Your task to perform on an android device: Open settings on Google Maps Image 0: 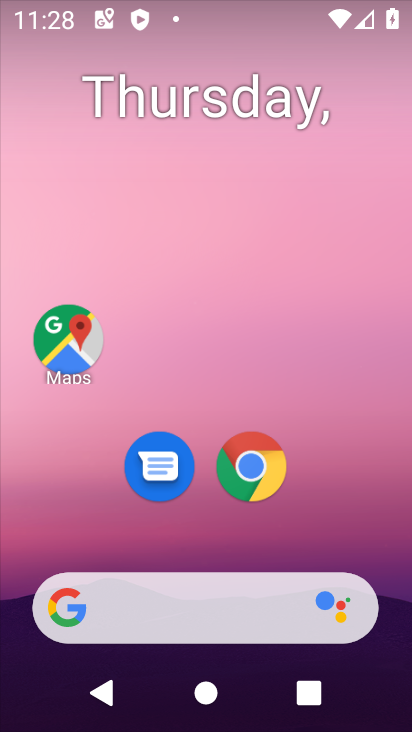
Step 0: drag from (374, 598) to (349, 53)
Your task to perform on an android device: Open settings on Google Maps Image 1: 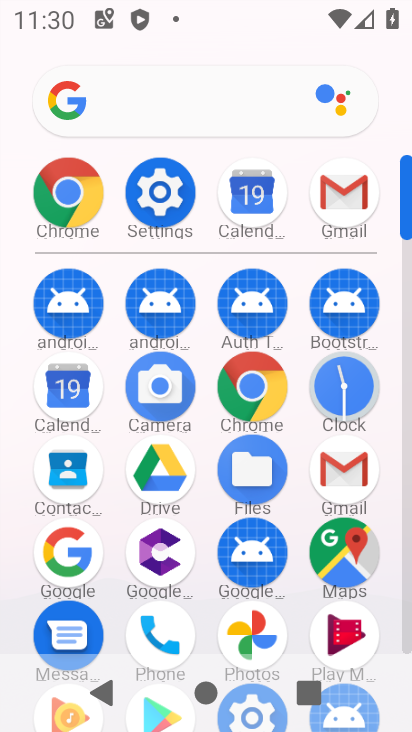
Step 1: click (355, 546)
Your task to perform on an android device: Open settings on Google Maps Image 2: 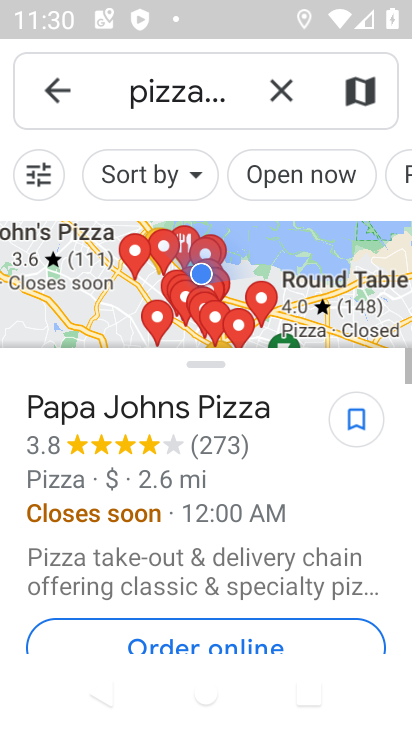
Step 2: press back button
Your task to perform on an android device: Open settings on Google Maps Image 3: 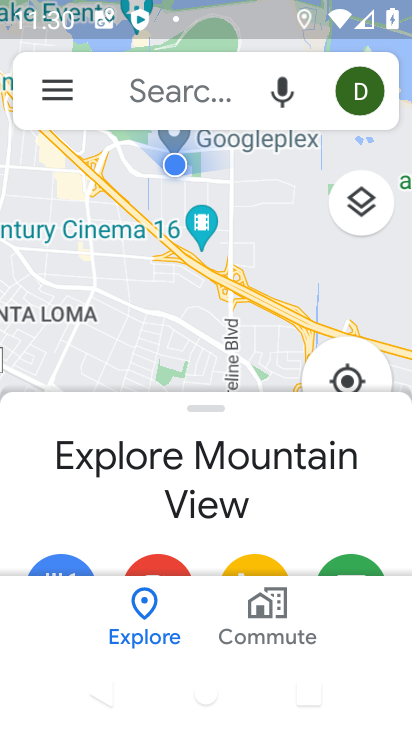
Step 3: click (60, 77)
Your task to perform on an android device: Open settings on Google Maps Image 4: 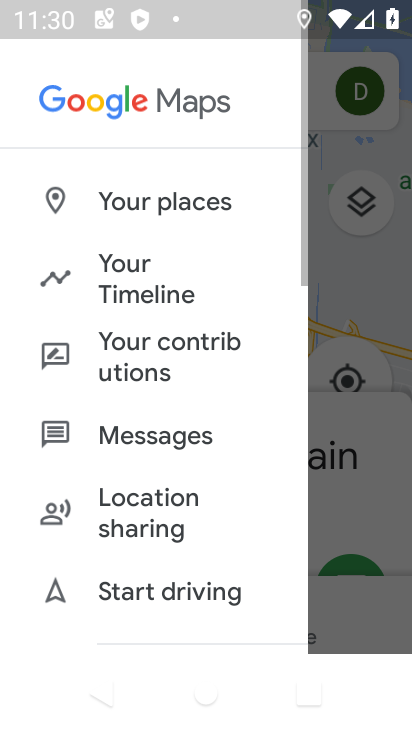
Step 4: drag from (108, 600) to (152, 122)
Your task to perform on an android device: Open settings on Google Maps Image 5: 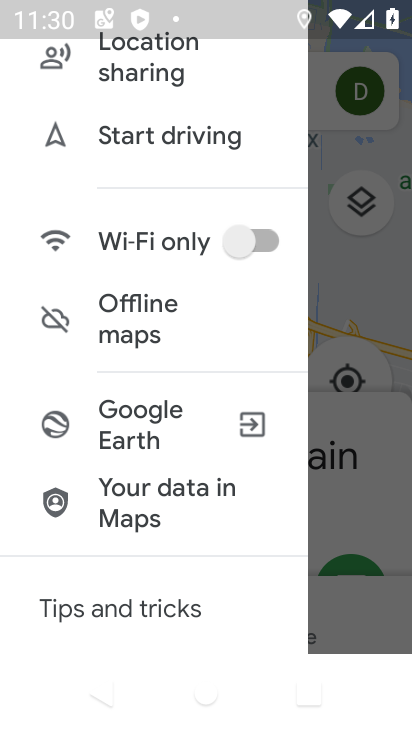
Step 5: drag from (125, 612) to (191, 126)
Your task to perform on an android device: Open settings on Google Maps Image 6: 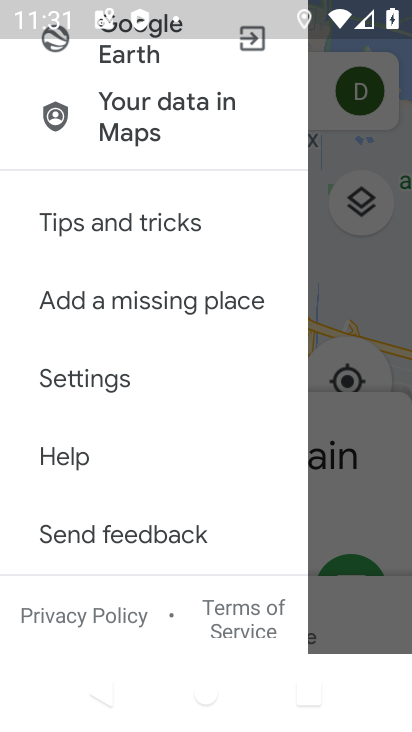
Step 6: click (105, 372)
Your task to perform on an android device: Open settings on Google Maps Image 7: 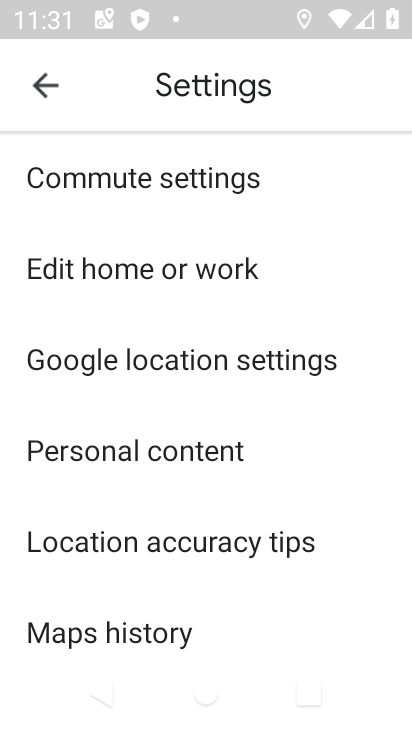
Step 7: task complete